Your task to perform on an android device: Go to Android settings Image 0: 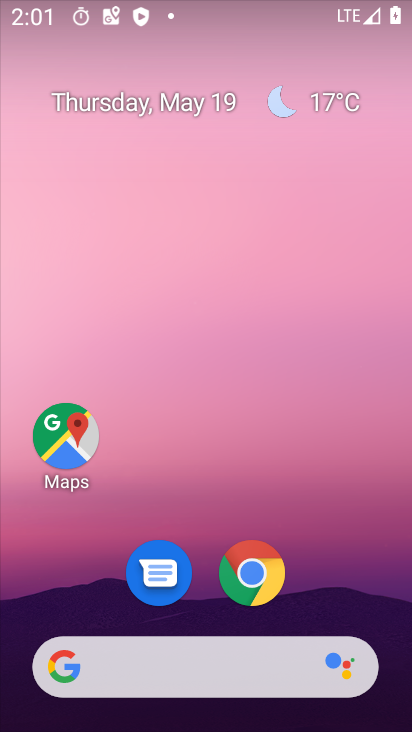
Step 0: drag from (190, 552) to (252, 108)
Your task to perform on an android device: Go to Android settings Image 1: 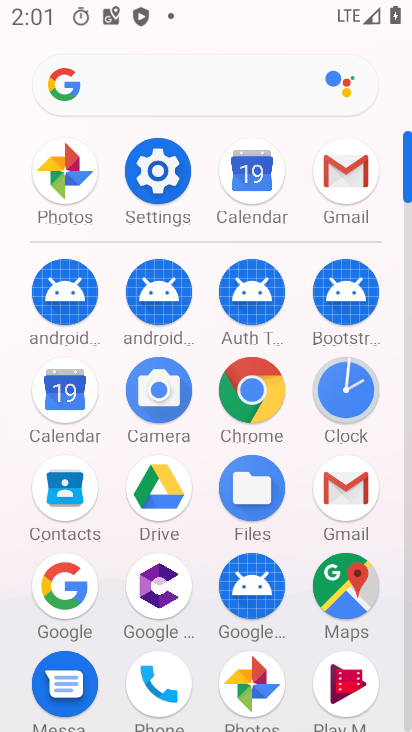
Step 1: click (162, 176)
Your task to perform on an android device: Go to Android settings Image 2: 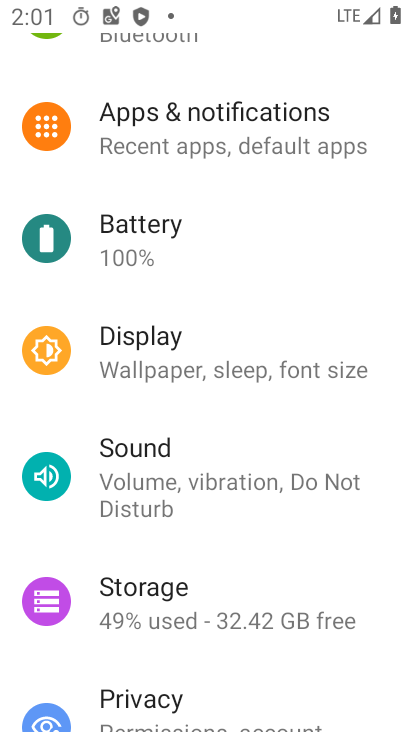
Step 2: drag from (202, 664) to (318, 87)
Your task to perform on an android device: Go to Android settings Image 3: 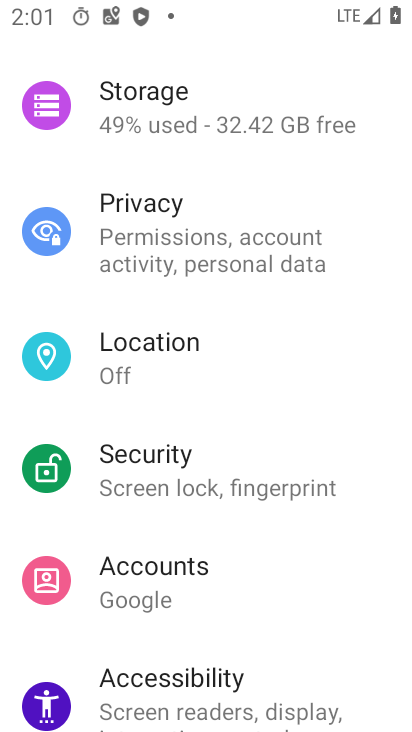
Step 3: drag from (265, 692) to (344, 57)
Your task to perform on an android device: Go to Android settings Image 4: 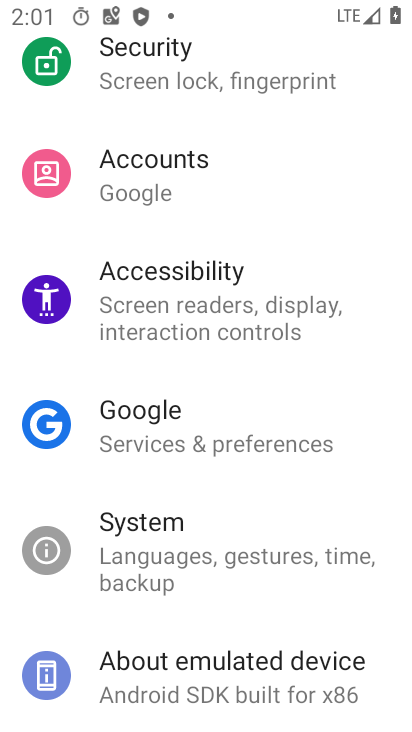
Step 4: drag from (202, 671) to (307, 195)
Your task to perform on an android device: Go to Android settings Image 5: 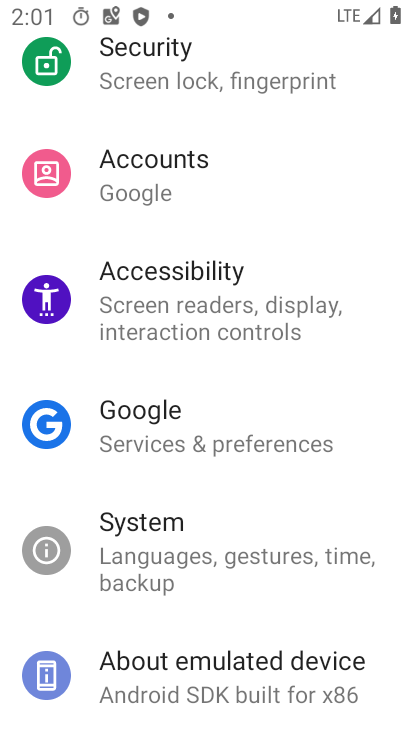
Step 5: click (220, 682)
Your task to perform on an android device: Go to Android settings Image 6: 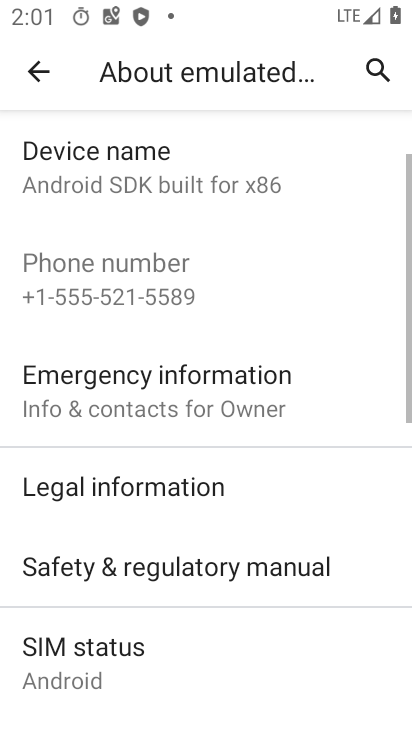
Step 6: drag from (168, 659) to (252, 189)
Your task to perform on an android device: Go to Android settings Image 7: 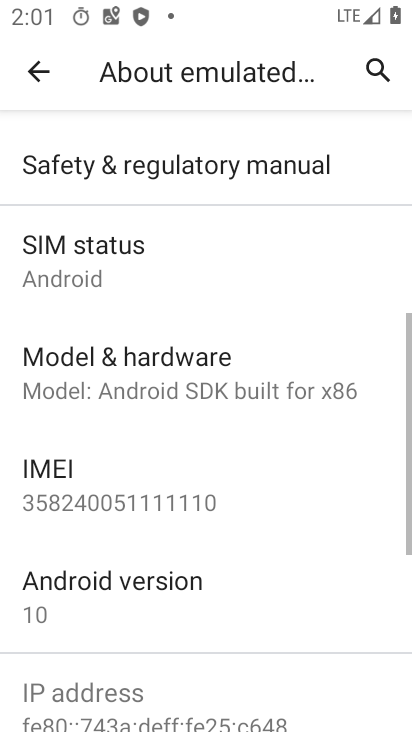
Step 7: click (127, 597)
Your task to perform on an android device: Go to Android settings Image 8: 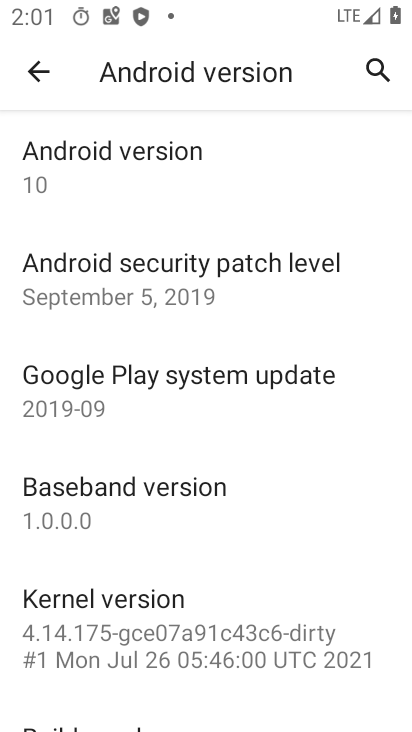
Step 8: click (163, 180)
Your task to perform on an android device: Go to Android settings Image 9: 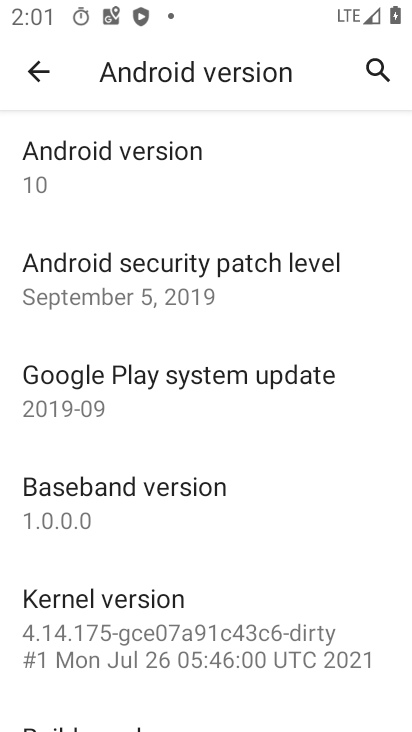
Step 9: task complete